Your task to perform on an android device: turn off javascript in the chrome app Image 0: 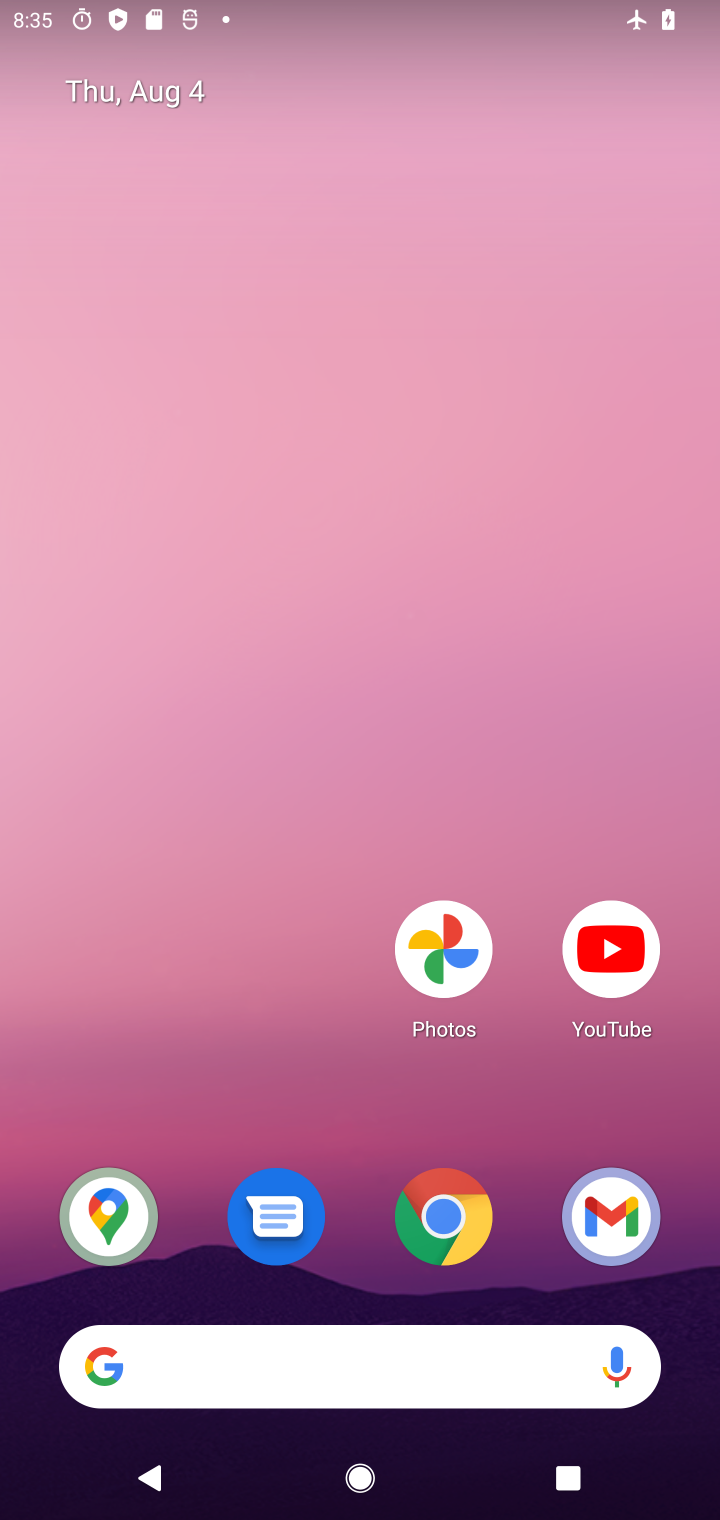
Step 0: click (443, 1218)
Your task to perform on an android device: turn off javascript in the chrome app Image 1: 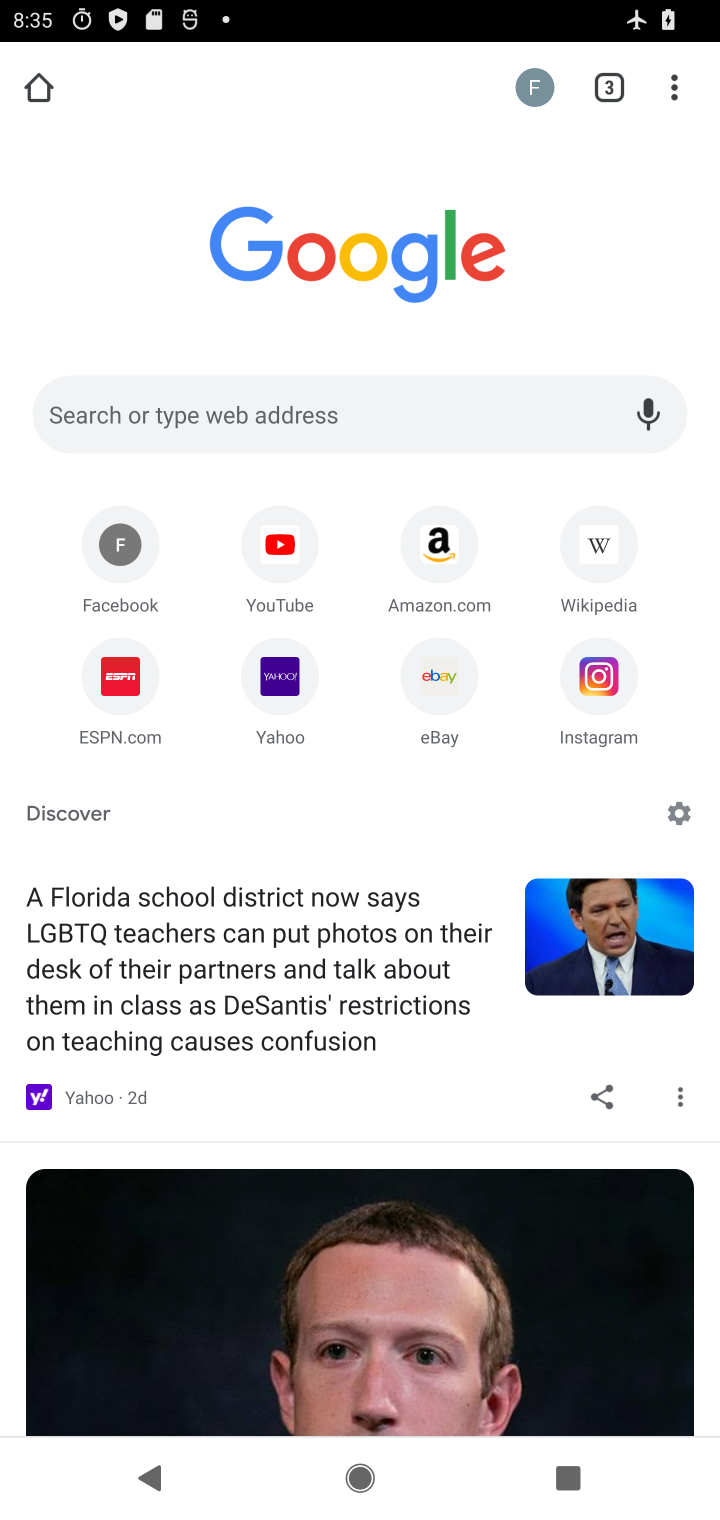
Step 1: click (669, 90)
Your task to perform on an android device: turn off javascript in the chrome app Image 2: 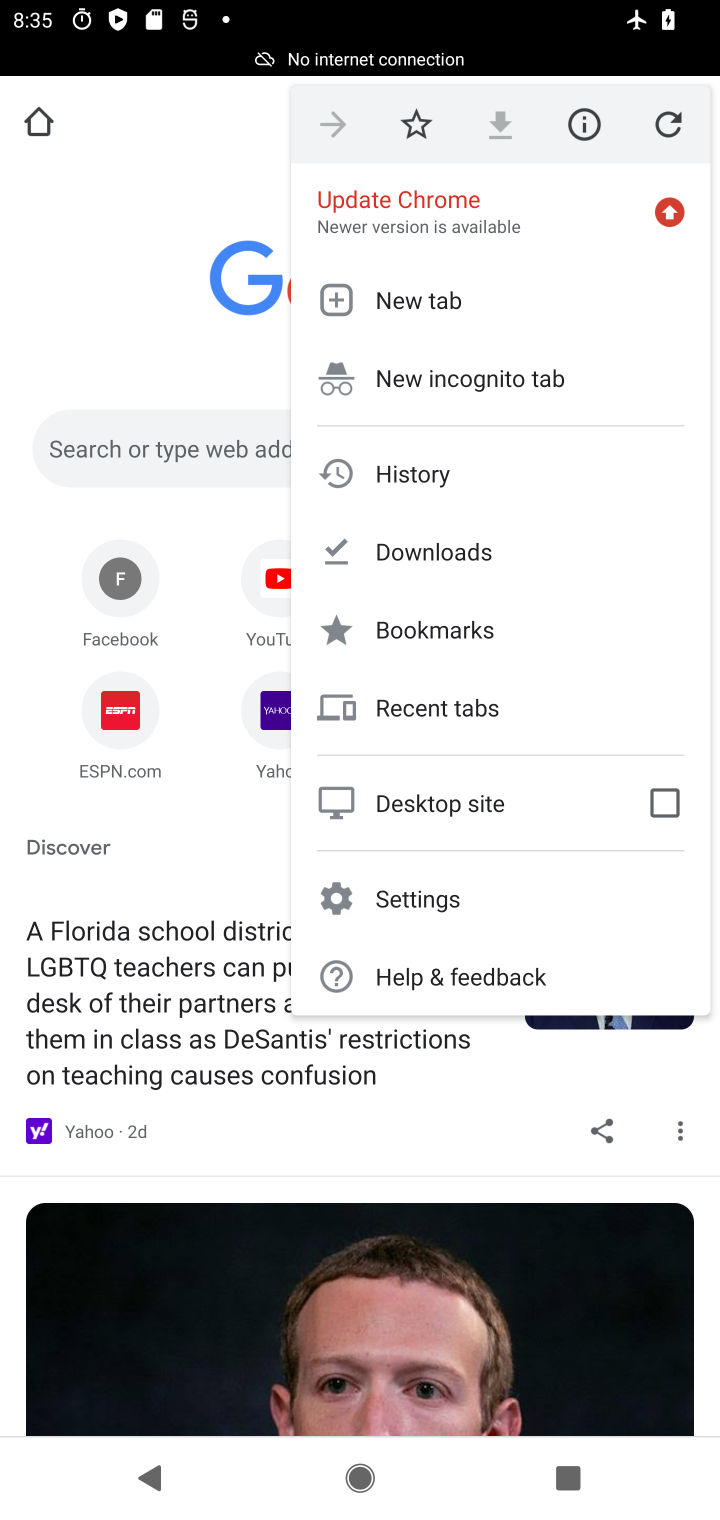
Step 2: click (416, 888)
Your task to perform on an android device: turn off javascript in the chrome app Image 3: 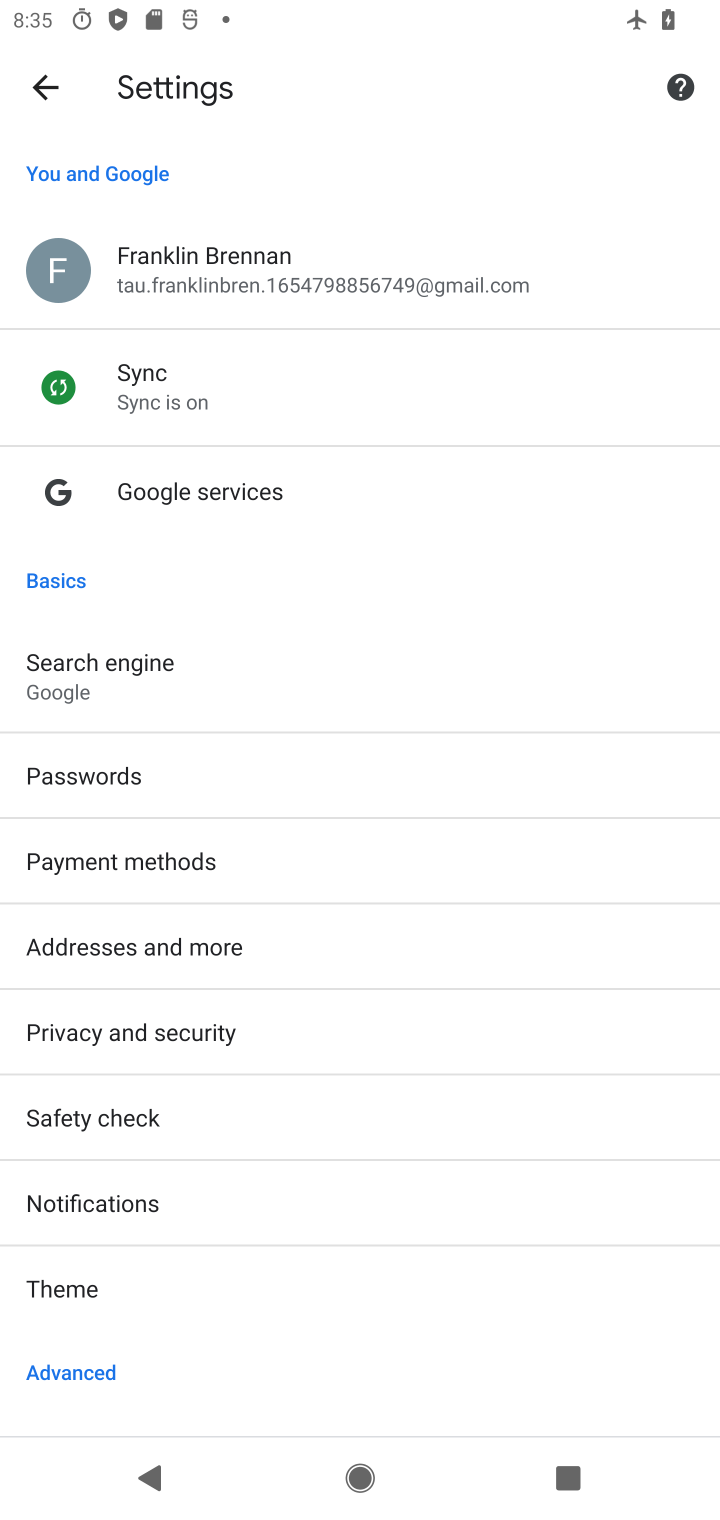
Step 3: drag from (222, 1227) to (262, 672)
Your task to perform on an android device: turn off javascript in the chrome app Image 4: 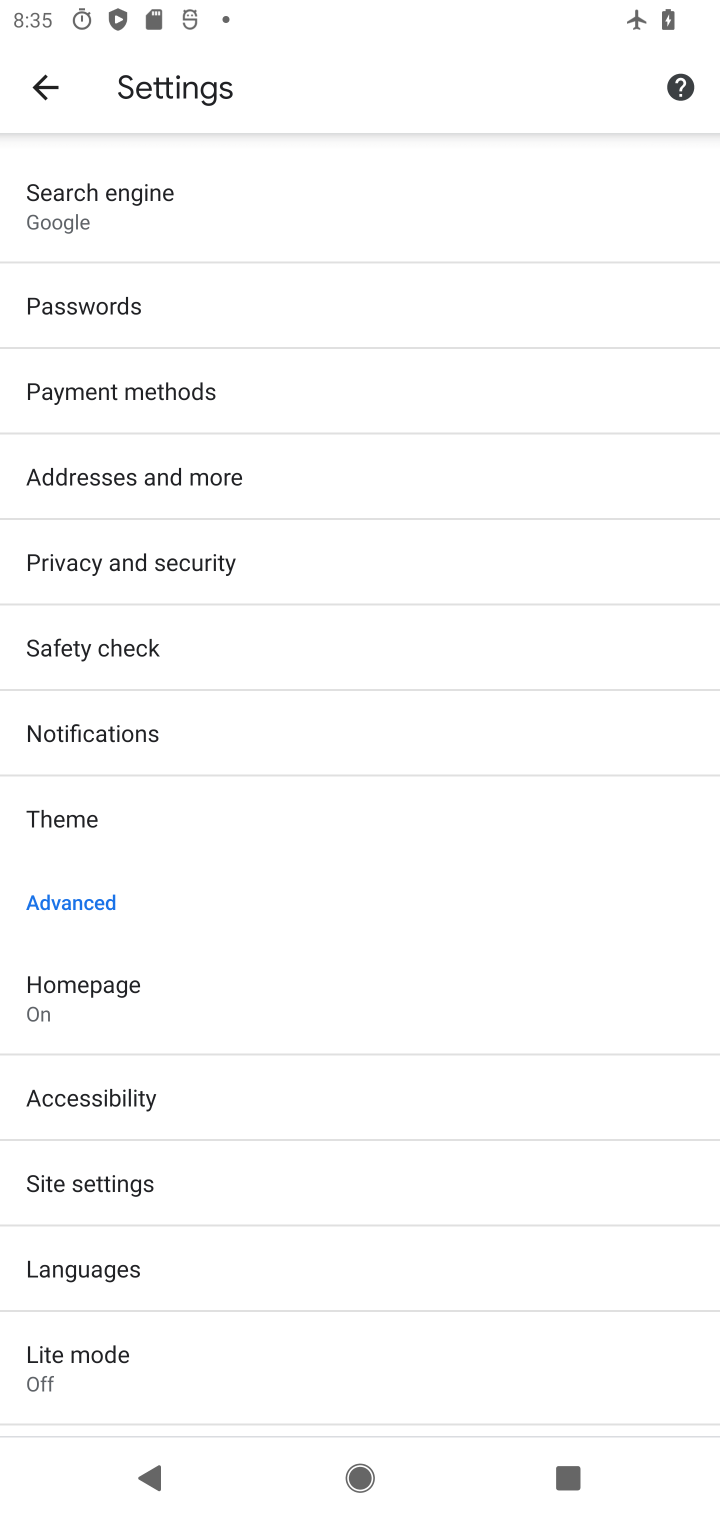
Step 4: click (111, 1177)
Your task to perform on an android device: turn off javascript in the chrome app Image 5: 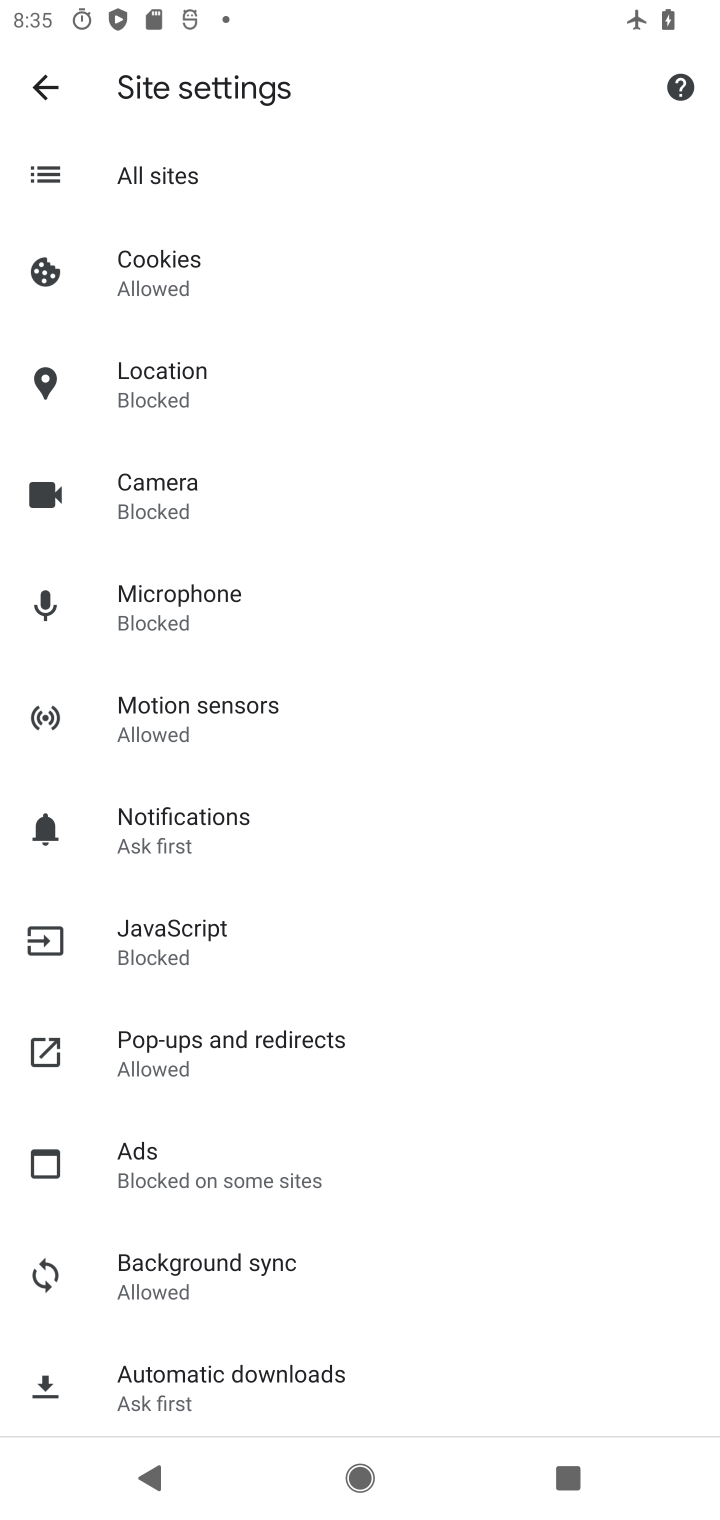
Step 5: click (143, 937)
Your task to perform on an android device: turn off javascript in the chrome app Image 6: 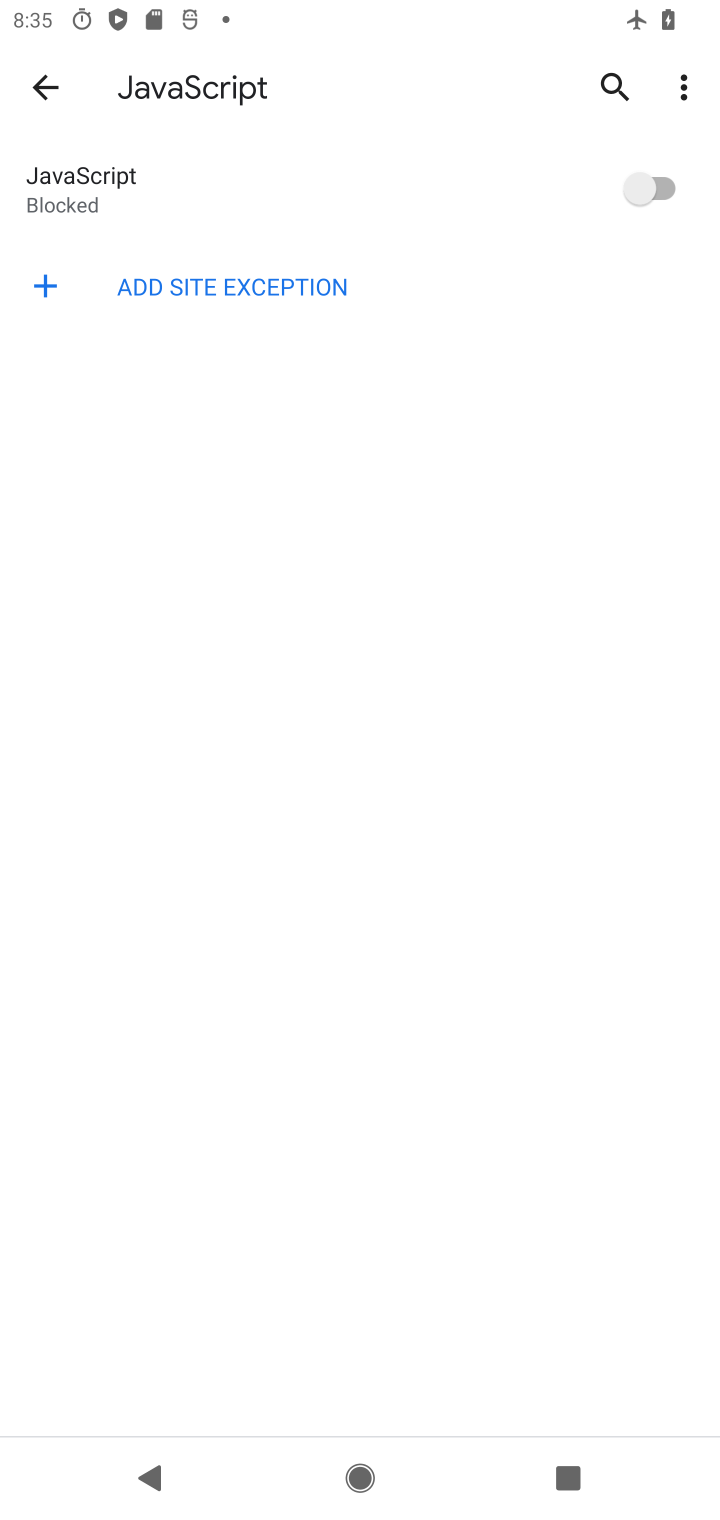
Step 6: task complete